Your task to perform on an android device: Do I have any events today? Image 0: 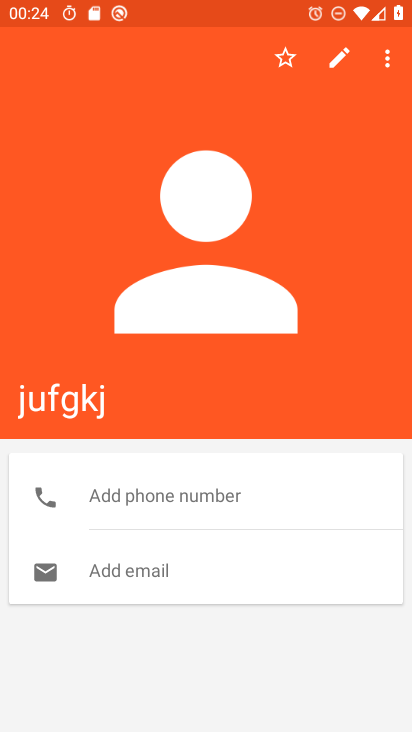
Step 0: press home button
Your task to perform on an android device: Do I have any events today? Image 1: 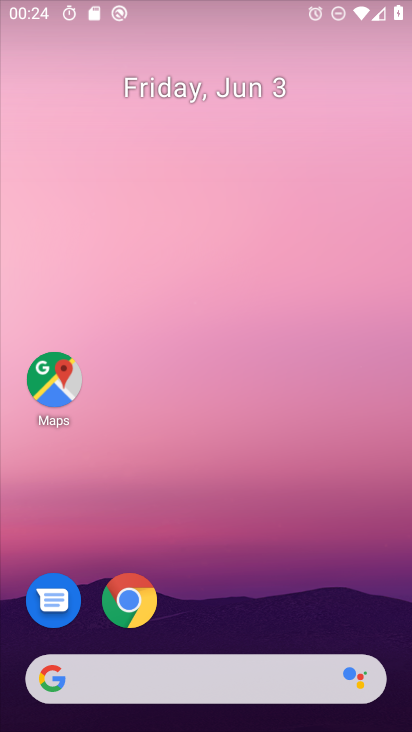
Step 1: drag from (264, 524) to (254, 60)
Your task to perform on an android device: Do I have any events today? Image 2: 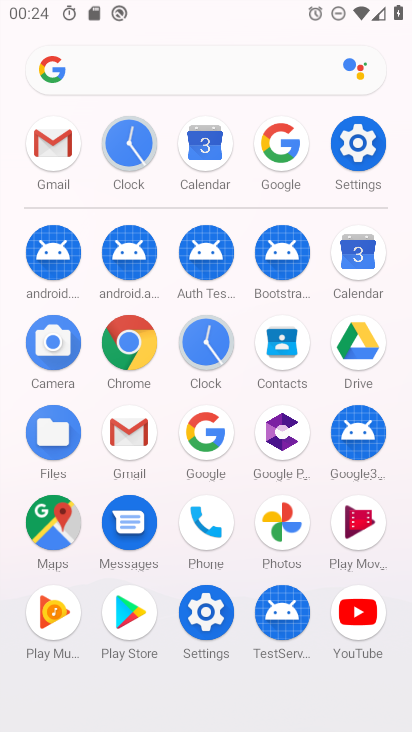
Step 2: click (359, 258)
Your task to perform on an android device: Do I have any events today? Image 3: 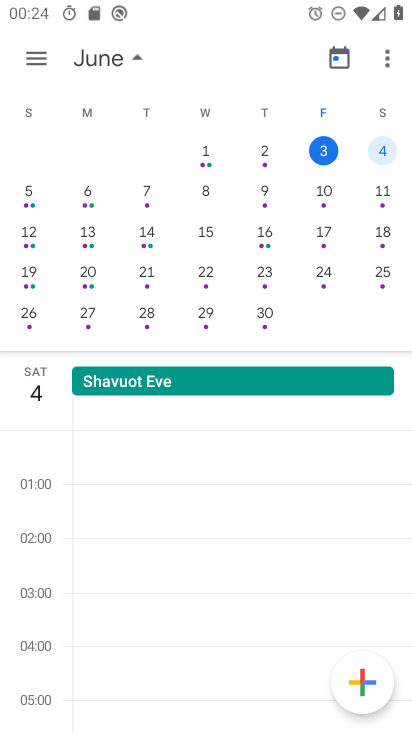
Step 3: click (325, 149)
Your task to perform on an android device: Do I have any events today? Image 4: 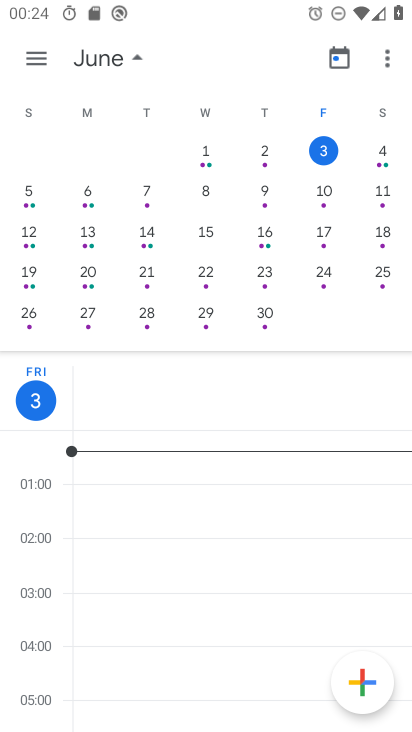
Step 4: click (36, 55)
Your task to perform on an android device: Do I have any events today? Image 5: 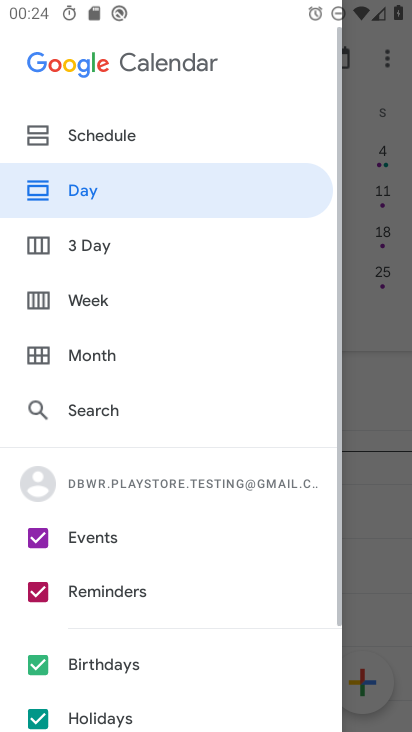
Step 5: click (92, 122)
Your task to perform on an android device: Do I have any events today? Image 6: 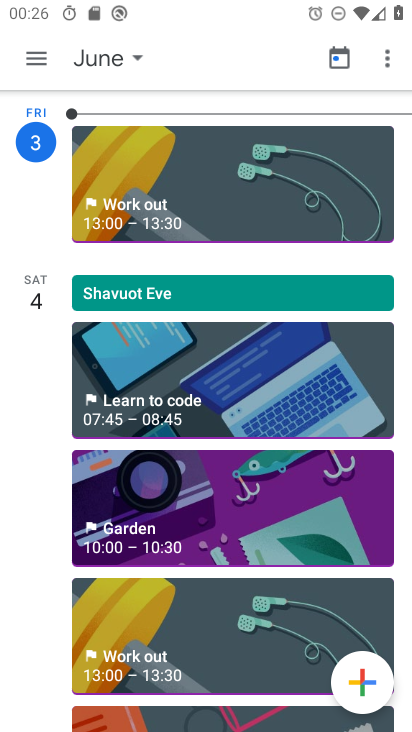
Step 6: task complete